Your task to perform on an android device: show emergency info Image 0: 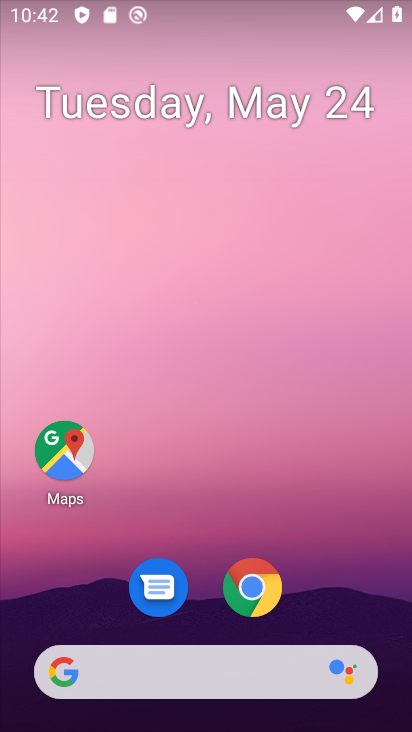
Step 0: press home button
Your task to perform on an android device: show emergency info Image 1: 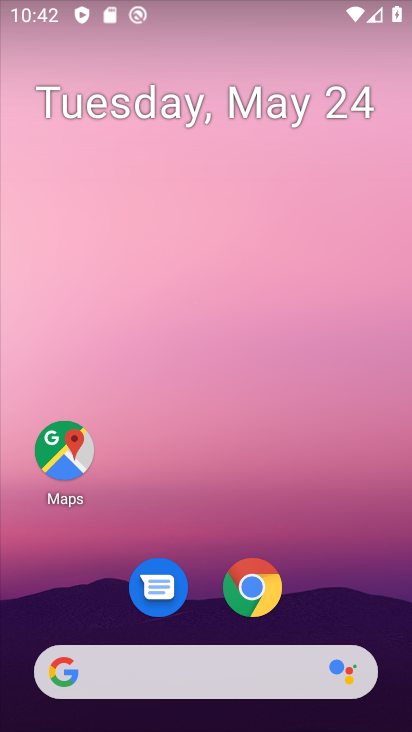
Step 1: drag from (326, 630) to (359, 194)
Your task to perform on an android device: show emergency info Image 2: 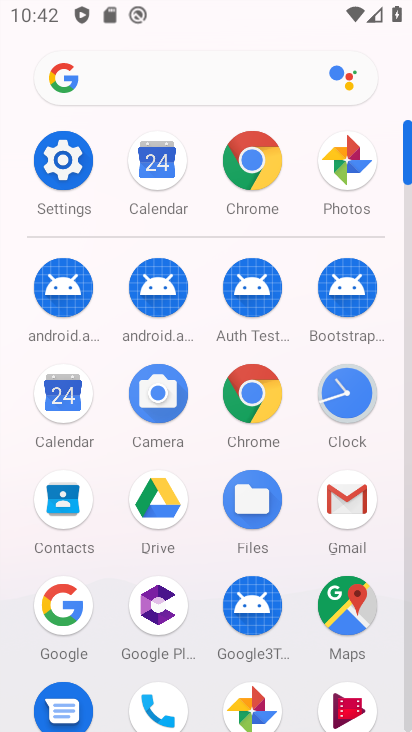
Step 2: click (55, 171)
Your task to perform on an android device: show emergency info Image 3: 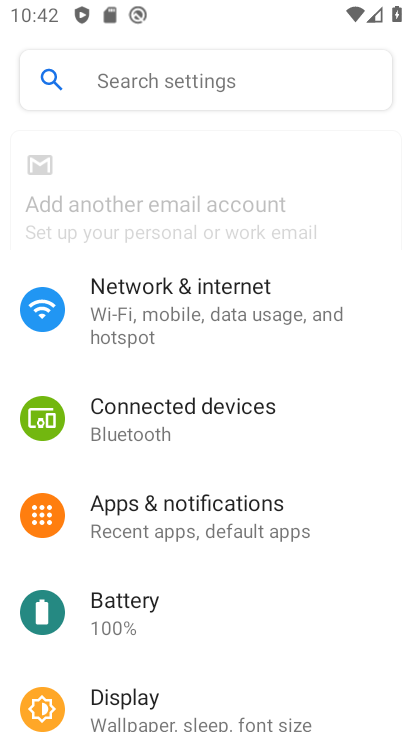
Step 3: drag from (231, 601) to (202, 246)
Your task to perform on an android device: show emergency info Image 4: 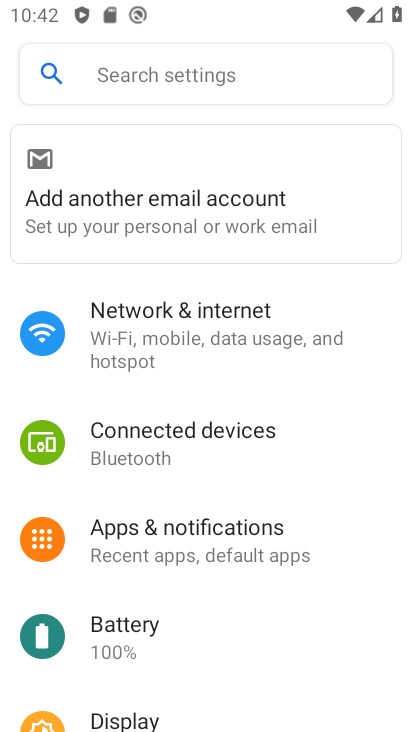
Step 4: drag from (222, 626) to (224, 568)
Your task to perform on an android device: show emergency info Image 5: 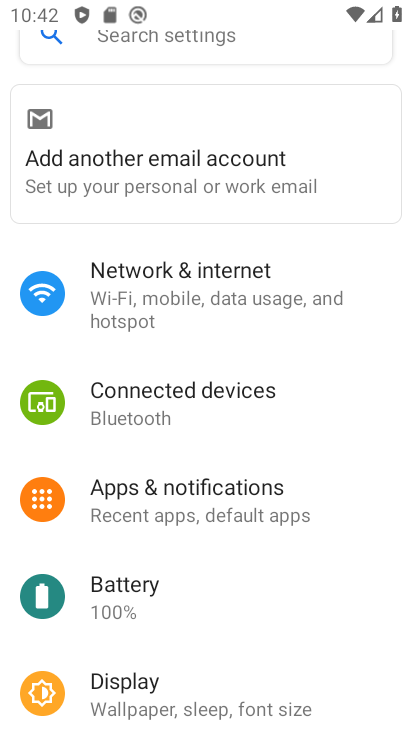
Step 5: drag from (234, 624) to (128, 41)
Your task to perform on an android device: show emergency info Image 6: 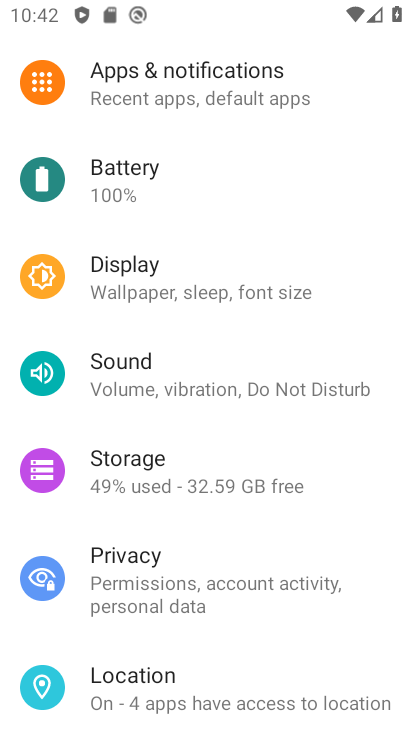
Step 6: drag from (156, 605) to (137, 148)
Your task to perform on an android device: show emergency info Image 7: 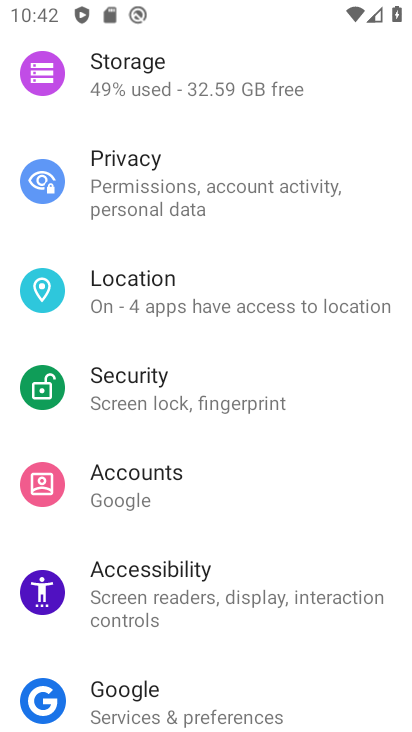
Step 7: drag from (167, 658) to (272, 212)
Your task to perform on an android device: show emergency info Image 8: 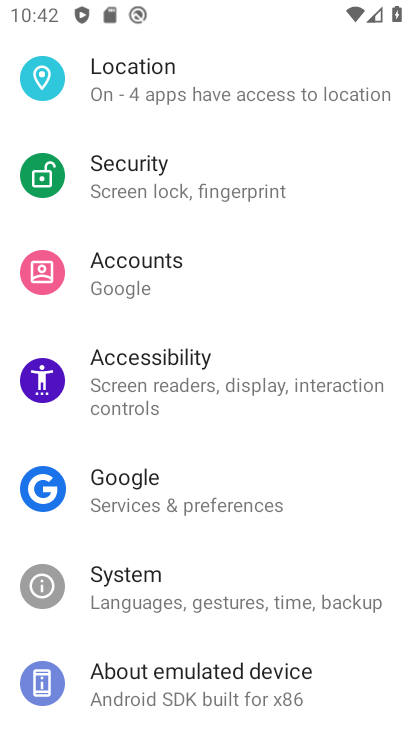
Step 8: click (152, 675)
Your task to perform on an android device: show emergency info Image 9: 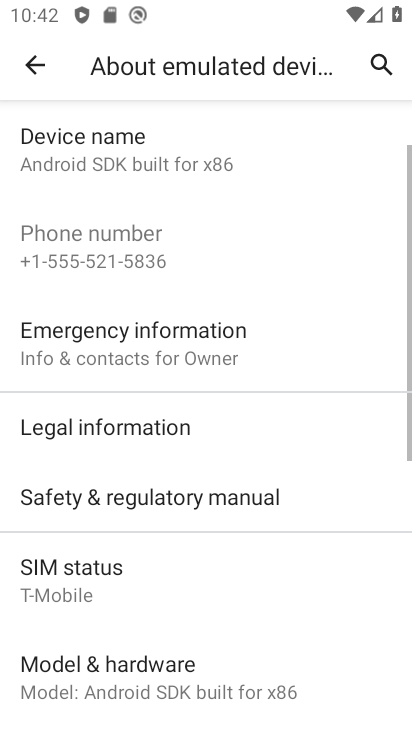
Step 9: click (196, 340)
Your task to perform on an android device: show emergency info Image 10: 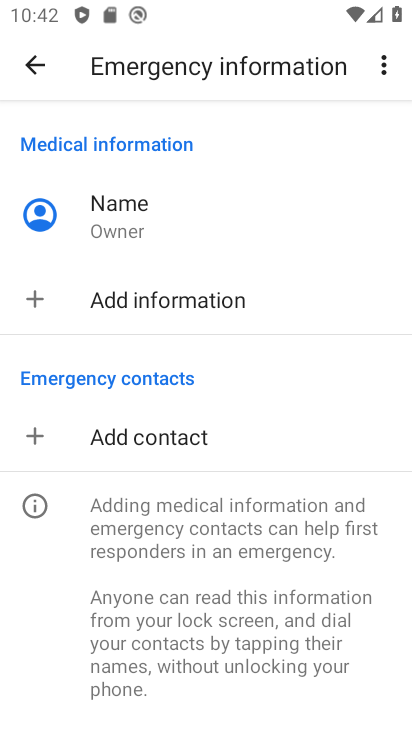
Step 10: task complete